Your task to perform on an android device: Is it going to rain this weekend? Image 0: 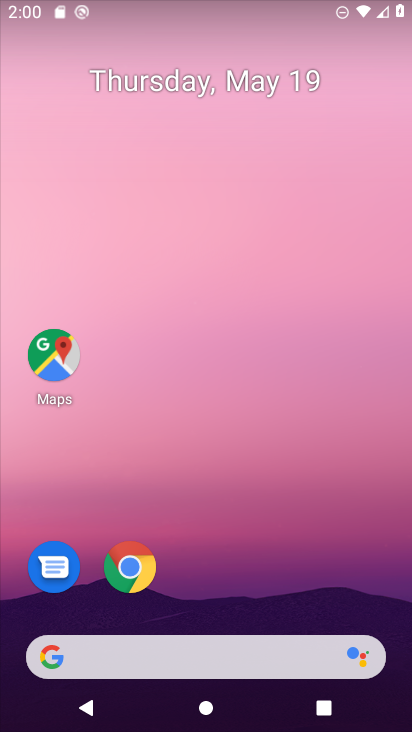
Step 0: click (235, 659)
Your task to perform on an android device: Is it going to rain this weekend? Image 1: 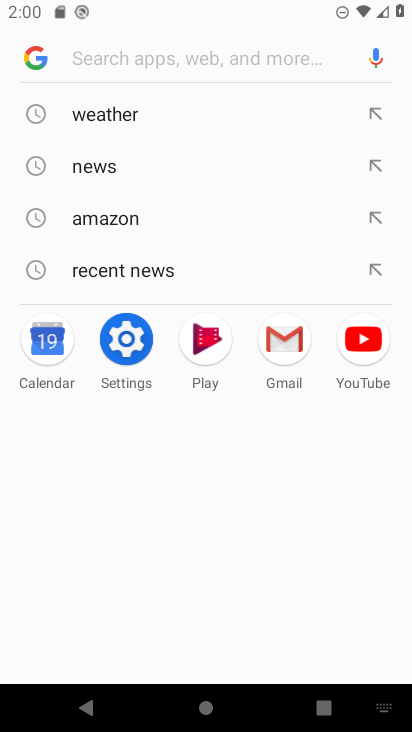
Step 1: click (104, 113)
Your task to perform on an android device: Is it going to rain this weekend? Image 2: 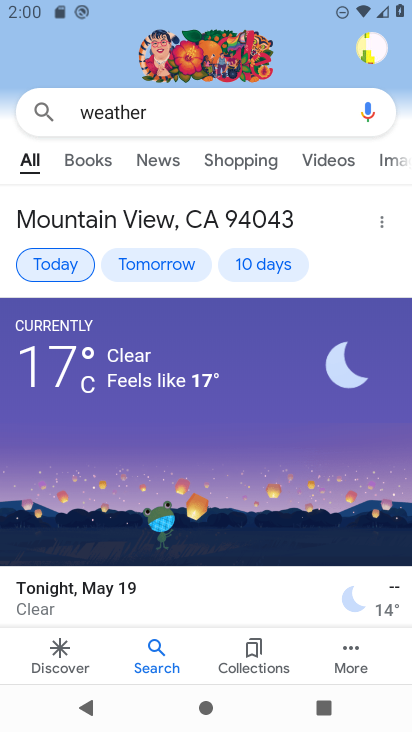
Step 2: click (77, 261)
Your task to perform on an android device: Is it going to rain this weekend? Image 3: 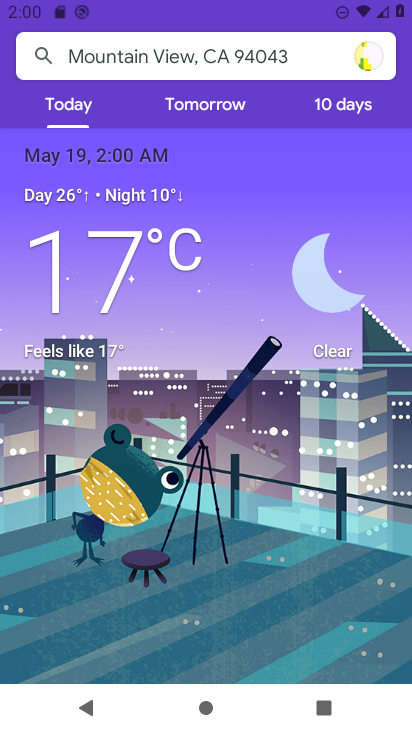
Step 3: click (333, 104)
Your task to perform on an android device: Is it going to rain this weekend? Image 4: 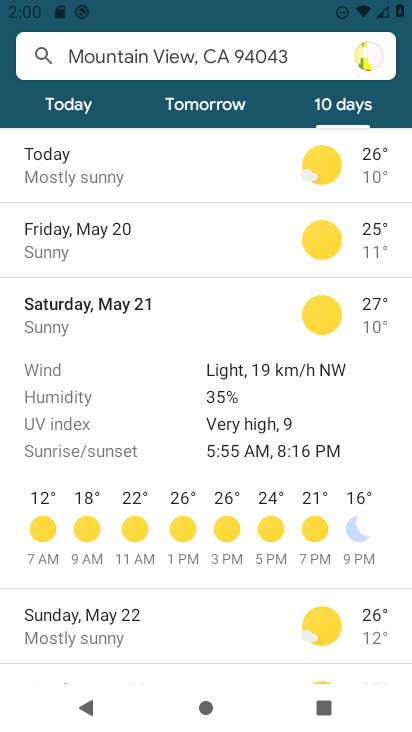
Step 4: task complete